Your task to perform on an android device: allow cookies in the chrome app Image 0: 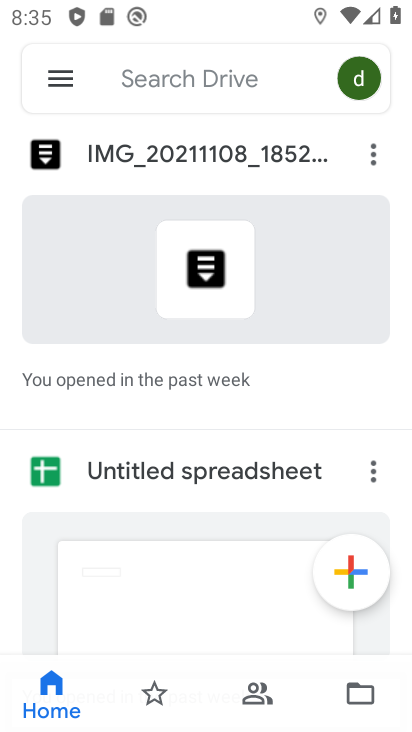
Step 0: press home button
Your task to perform on an android device: allow cookies in the chrome app Image 1: 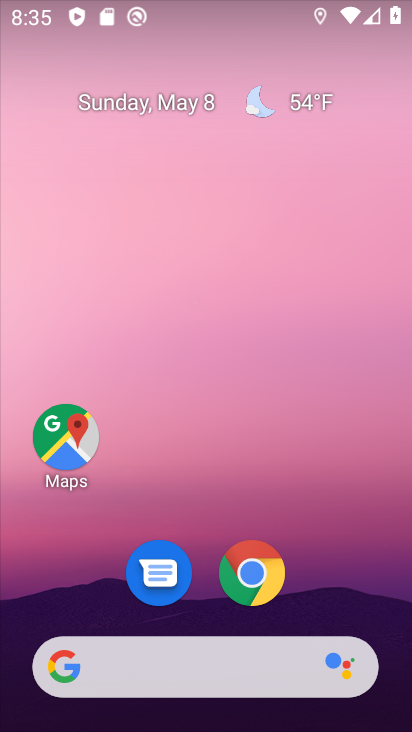
Step 1: click (255, 573)
Your task to perform on an android device: allow cookies in the chrome app Image 2: 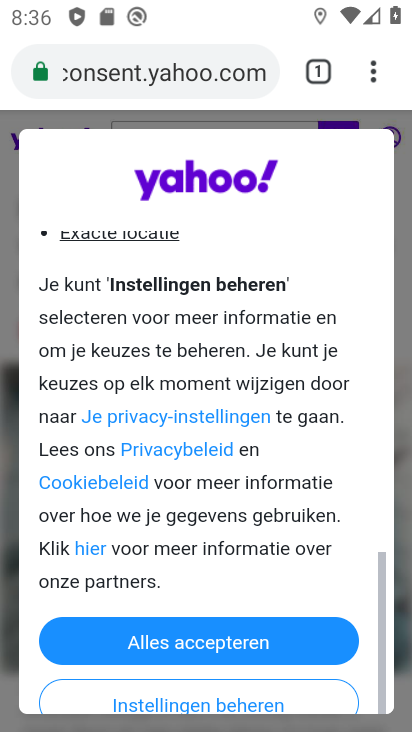
Step 2: click (372, 77)
Your task to perform on an android device: allow cookies in the chrome app Image 3: 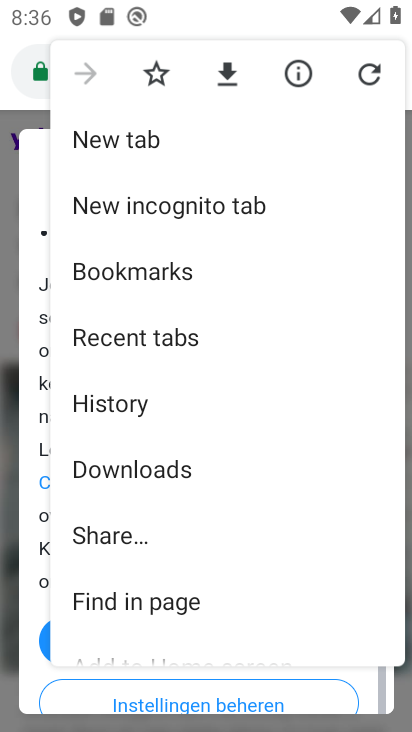
Step 3: drag from (231, 626) to (231, 258)
Your task to perform on an android device: allow cookies in the chrome app Image 4: 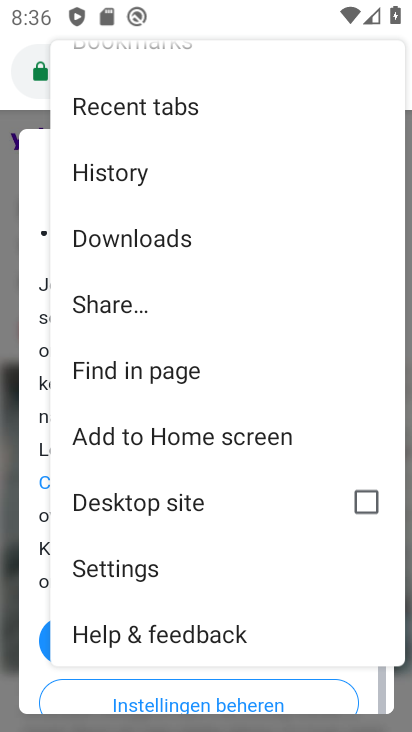
Step 4: click (150, 567)
Your task to perform on an android device: allow cookies in the chrome app Image 5: 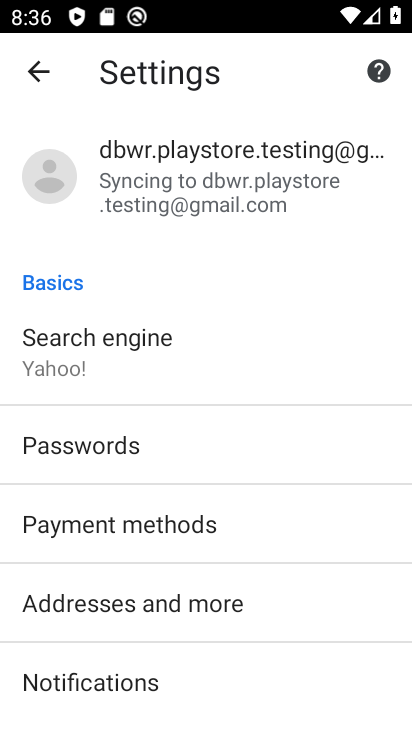
Step 5: drag from (165, 664) to (154, 367)
Your task to perform on an android device: allow cookies in the chrome app Image 6: 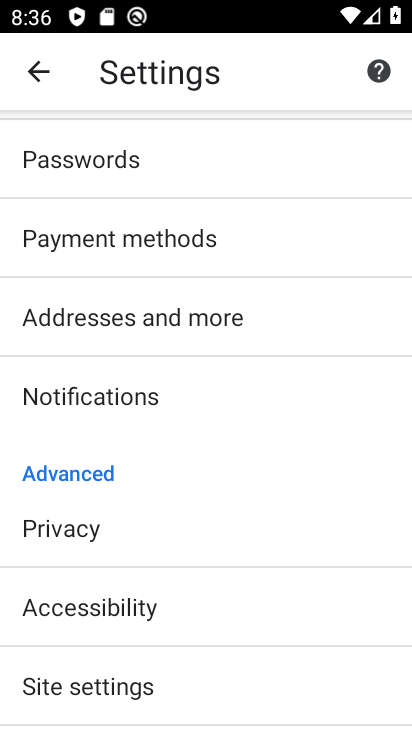
Step 6: drag from (142, 673) to (144, 466)
Your task to perform on an android device: allow cookies in the chrome app Image 7: 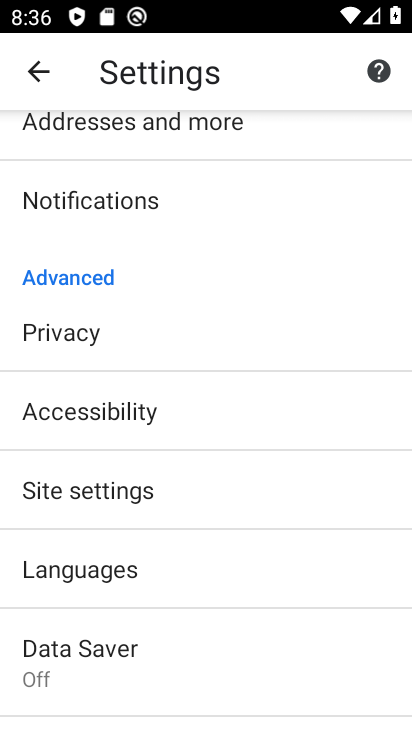
Step 7: click (104, 486)
Your task to perform on an android device: allow cookies in the chrome app Image 8: 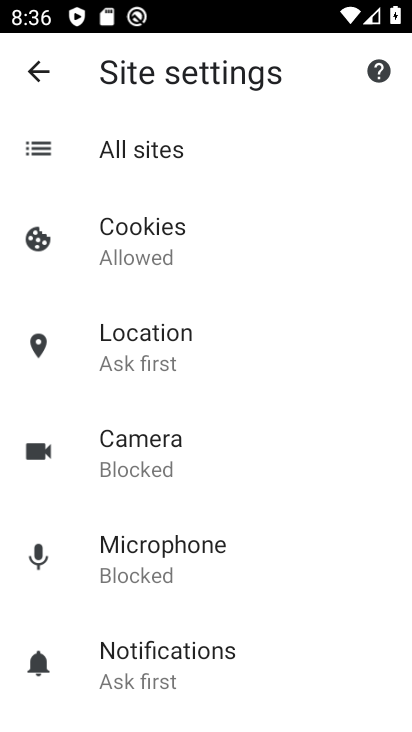
Step 8: click (133, 237)
Your task to perform on an android device: allow cookies in the chrome app Image 9: 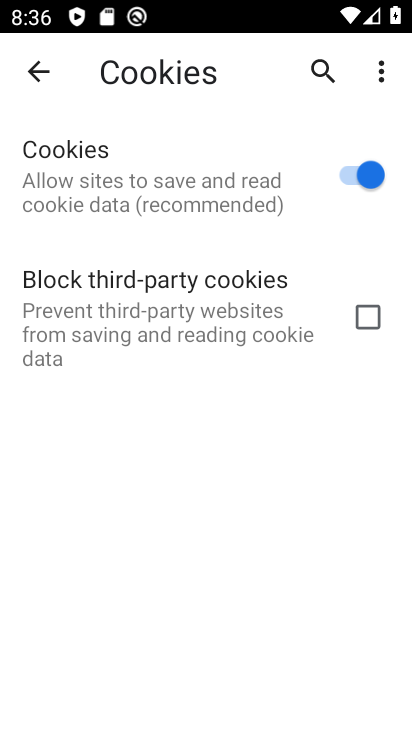
Step 9: task complete